Your task to perform on an android device: toggle data saver in the chrome app Image 0: 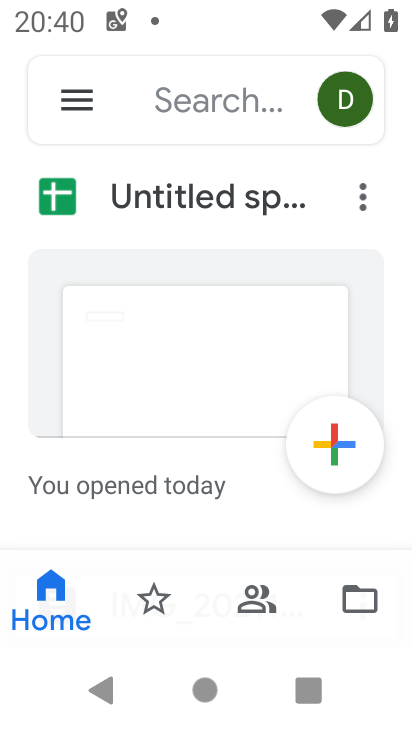
Step 0: press home button
Your task to perform on an android device: toggle data saver in the chrome app Image 1: 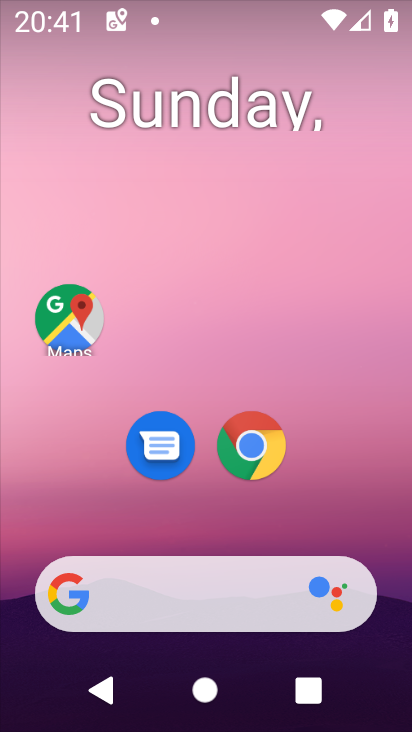
Step 1: click (258, 442)
Your task to perform on an android device: toggle data saver in the chrome app Image 2: 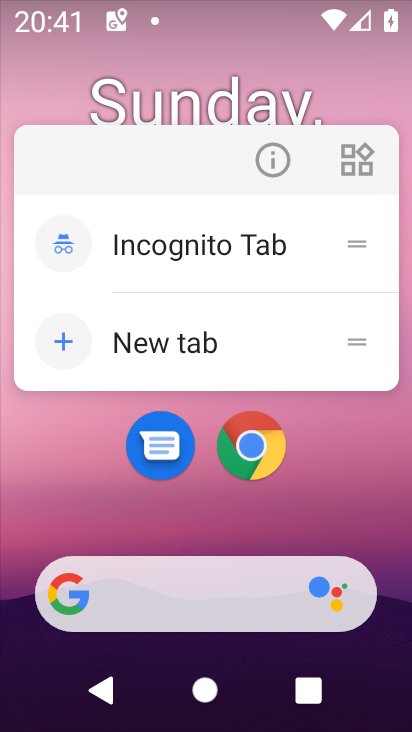
Step 2: click (248, 451)
Your task to perform on an android device: toggle data saver in the chrome app Image 3: 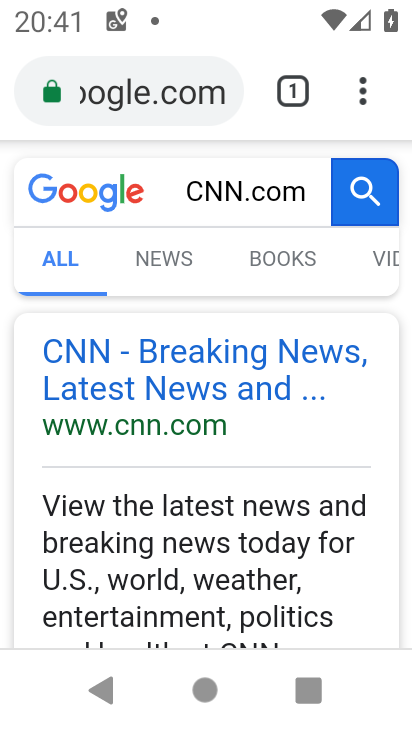
Step 3: click (361, 93)
Your task to perform on an android device: toggle data saver in the chrome app Image 4: 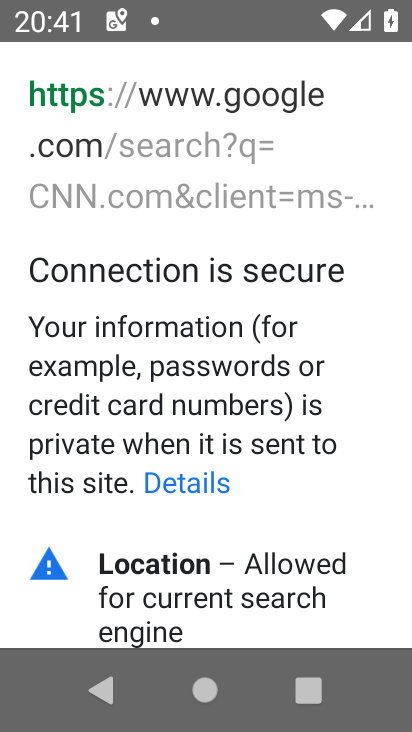
Step 4: press back button
Your task to perform on an android device: toggle data saver in the chrome app Image 5: 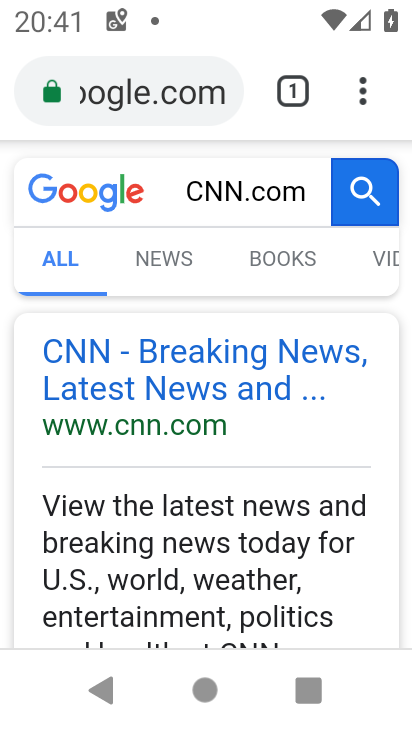
Step 5: click (358, 94)
Your task to perform on an android device: toggle data saver in the chrome app Image 6: 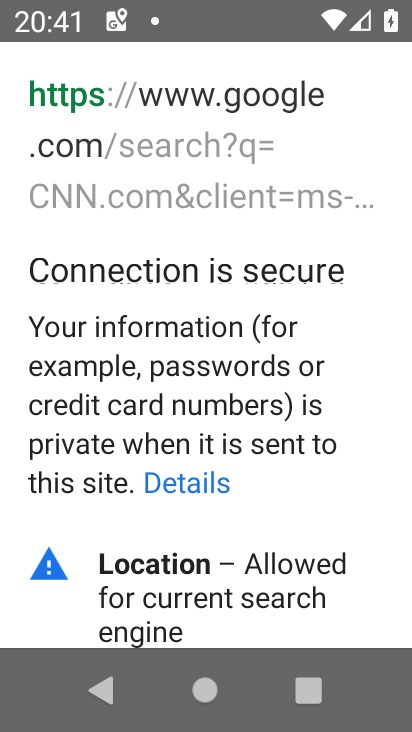
Step 6: press back button
Your task to perform on an android device: toggle data saver in the chrome app Image 7: 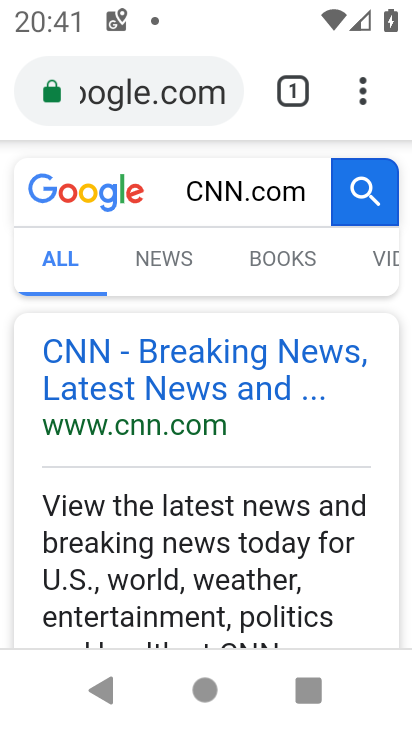
Step 7: click (361, 102)
Your task to perform on an android device: toggle data saver in the chrome app Image 8: 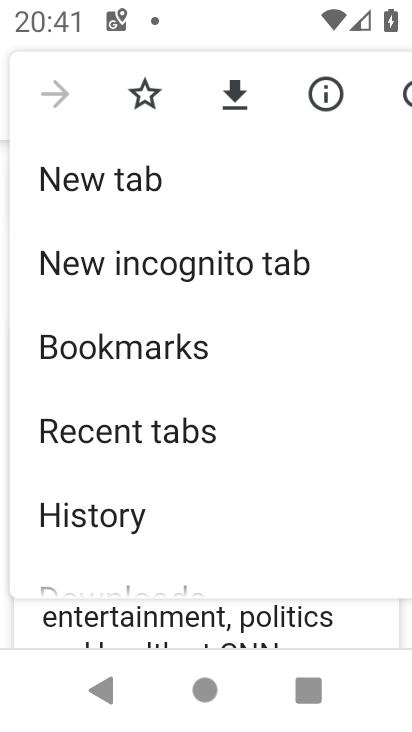
Step 8: drag from (21, 519) to (265, 95)
Your task to perform on an android device: toggle data saver in the chrome app Image 9: 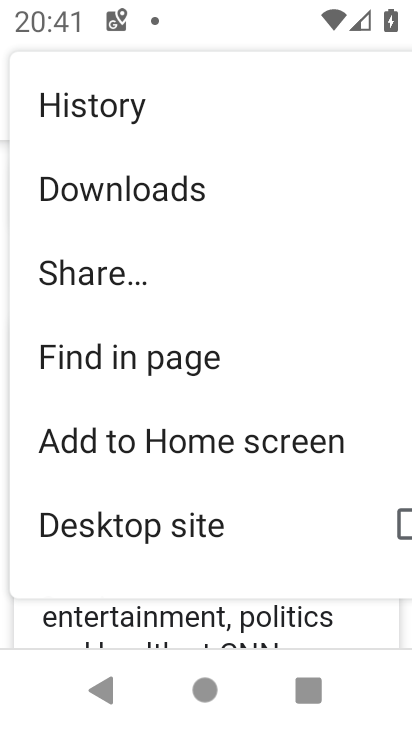
Step 9: drag from (74, 524) to (243, 112)
Your task to perform on an android device: toggle data saver in the chrome app Image 10: 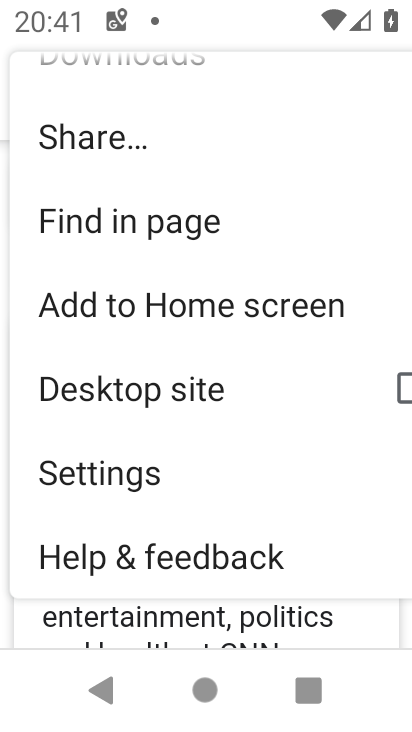
Step 10: click (53, 476)
Your task to perform on an android device: toggle data saver in the chrome app Image 11: 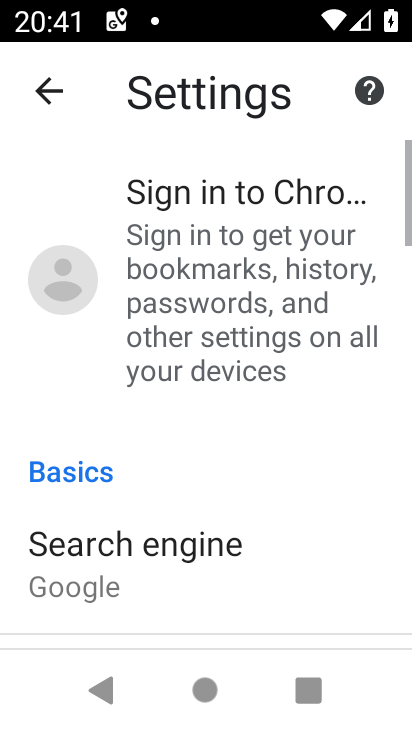
Step 11: drag from (11, 574) to (271, 19)
Your task to perform on an android device: toggle data saver in the chrome app Image 12: 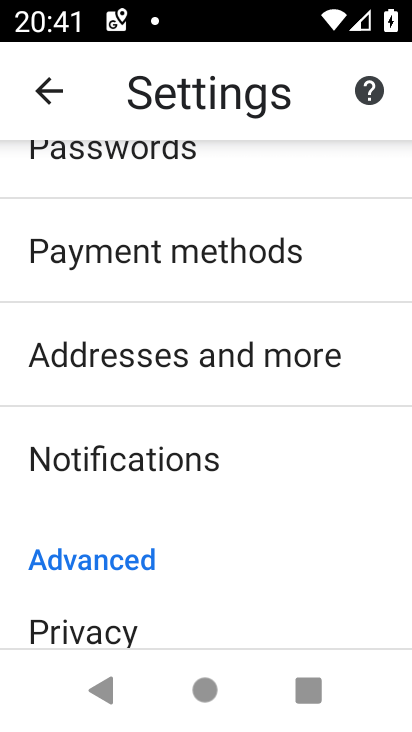
Step 12: drag from (49, 501) to (246, 141)
Your task to perform on an android device: toggle data saver in the chrome app Image 13: 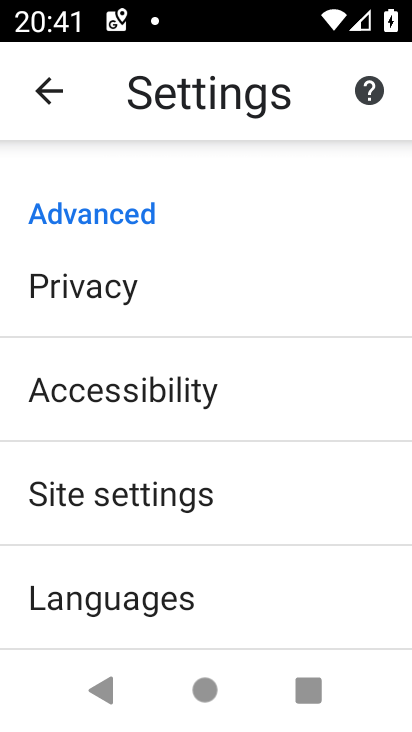
Step 13: drag from (5, 574) to (222, 226)
Your task to perform on an android device: toggle data saver in the chrome app Image 14: 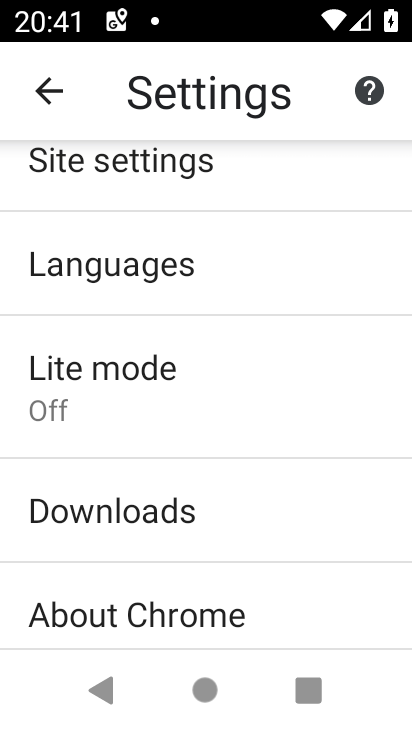
Step 14: click (196, 358)
Your task to perform on an android device: toggle data saver in the chrome app Image 15: 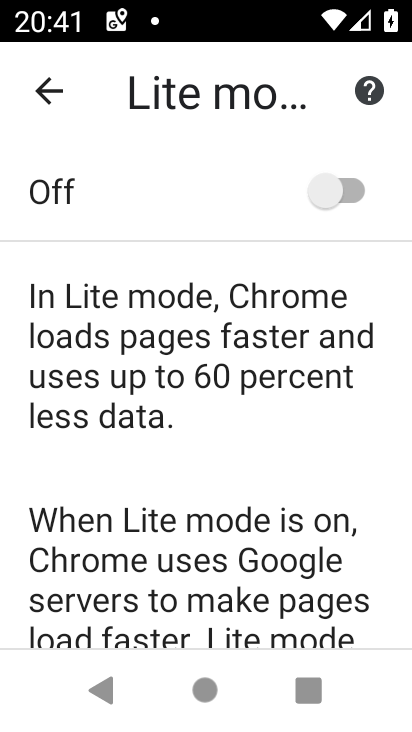
Step 15: click (315, 199)
Your task to perform on an android device: toggle data saver in the chrome app Image 16: 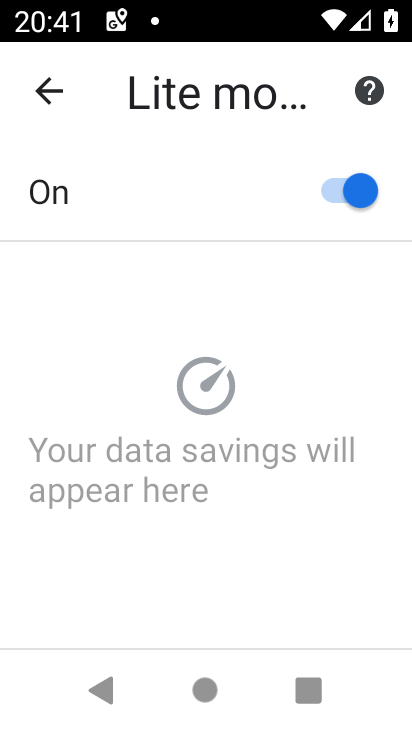
Step 16: task complete